Your task to perform on an android device: Go to battery settings Image 0: 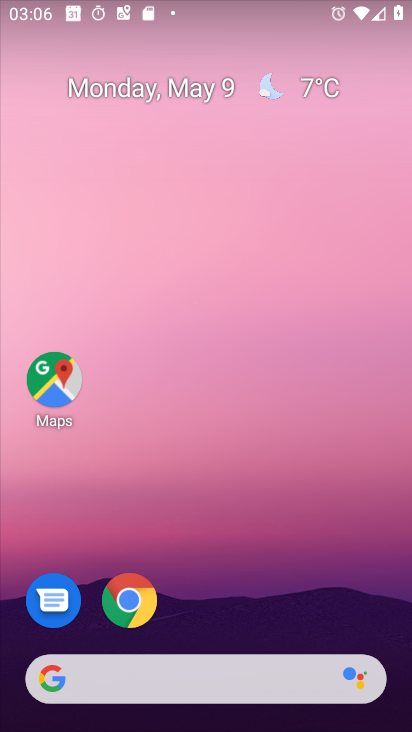
Step 0: drag from (264, 694) to (320, 162)
Your task to perform on an android device: Go to battery settings Image 1: 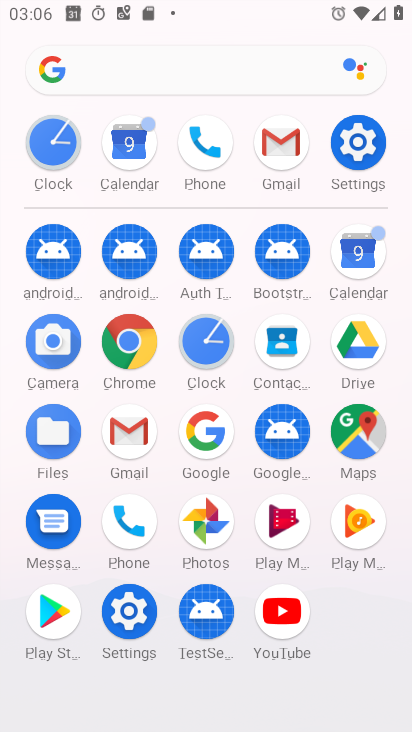
Step 1: click (344, 148)
Your task to perform on an android device: Go to battery settings Image 2: 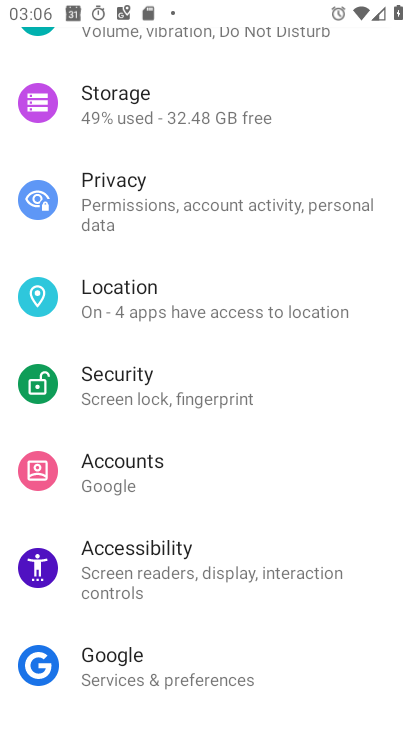
Step 2: drag from (245, 128) to (214, 517)
Your task to perform on an android device: Go to battery settings Image 3: 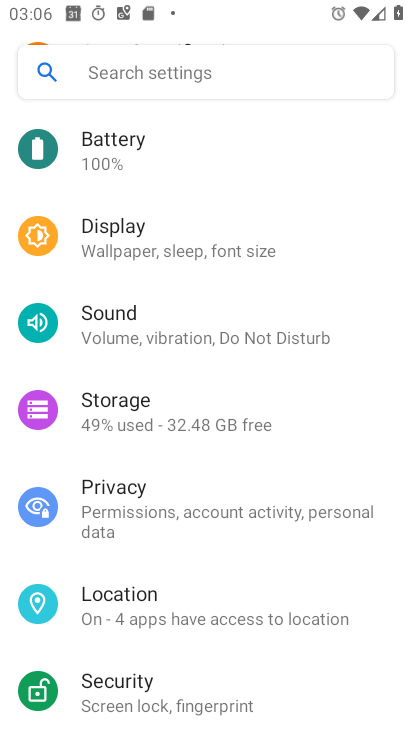
Step 3: click (125, 156)
Your task to perform on an android device: Go to battery settings Image 4: 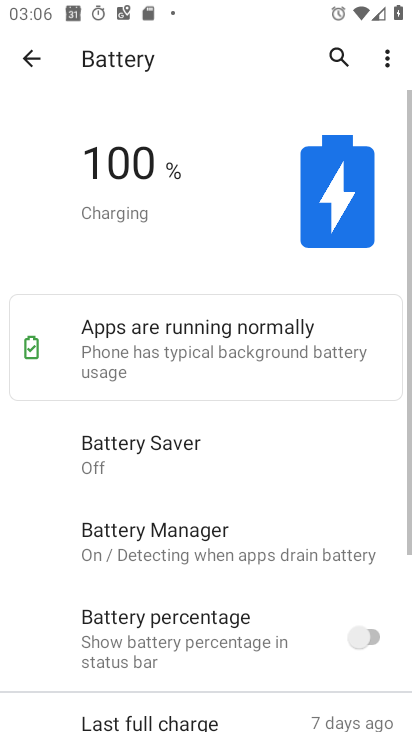
Step 4: click (125, 156)
Your task to perform on an android device: Go to battery settings Image 5: 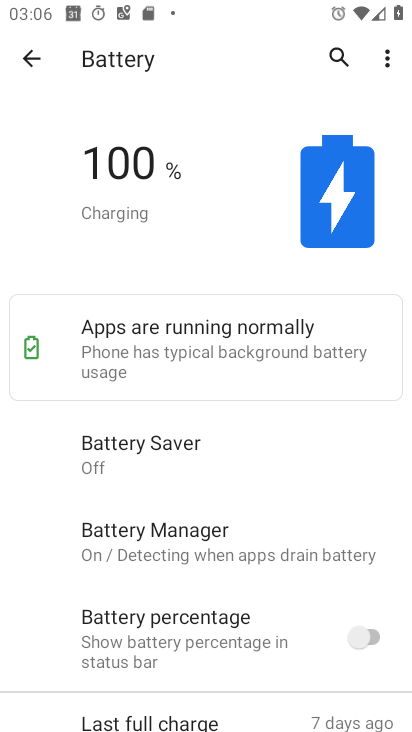
Step 5: task complete